Your task to perform on an android device: Open CNN.com Image 0: 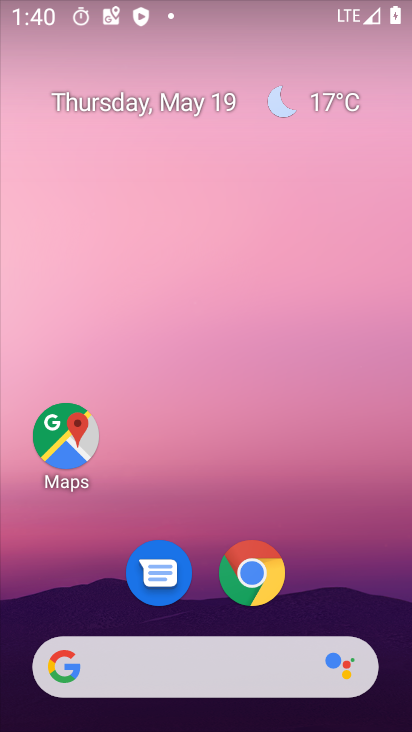
Step 0: click (247, 580)
Your task to perform on an android device: Open CNN.com Image 1: 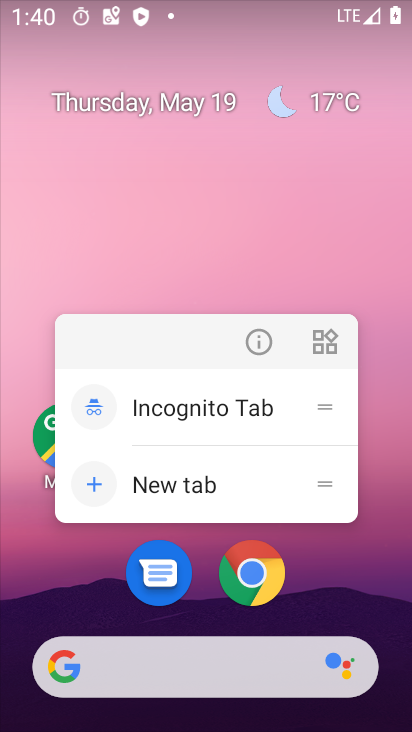
Step 1: click (243, 581)
Your task to perform on an android device: Open CNN.com Image 2: 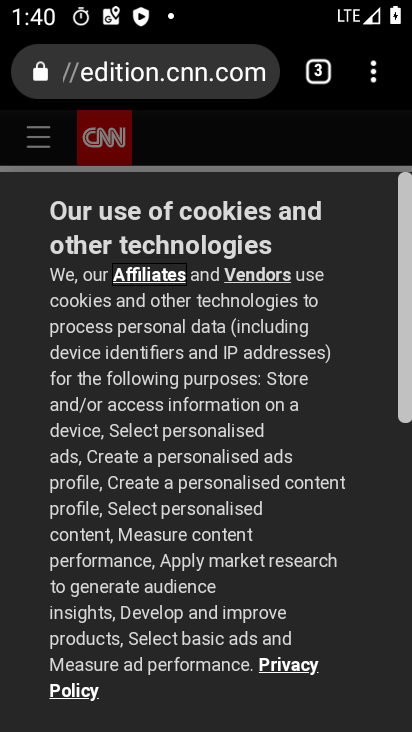
Step 2: click (316, 82)
Your task to perform on an android device: Open CNN.com Image 3: 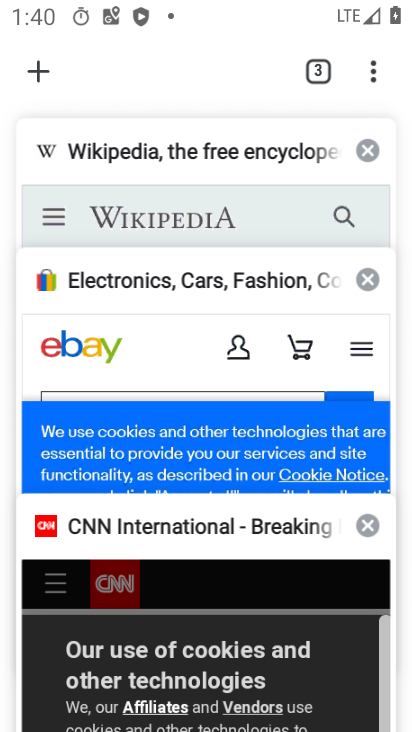
Step 3: click (91, 559)
Your task to perform on an android device: Open CNN.com Image 4: 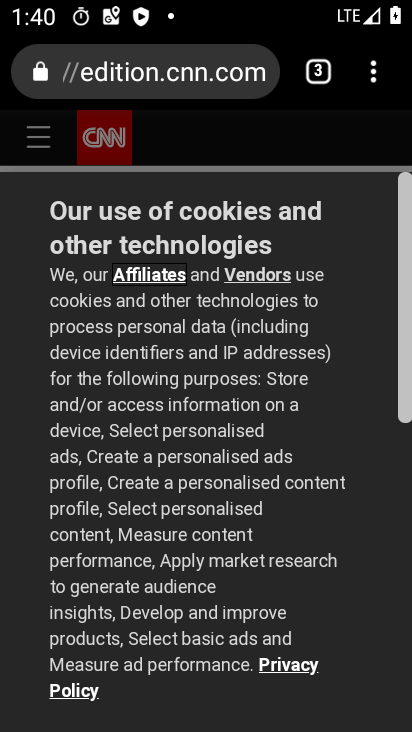
Step 4: task complete